Your task to perform on an android device: What's the weather going to be this weekend? Image 0: 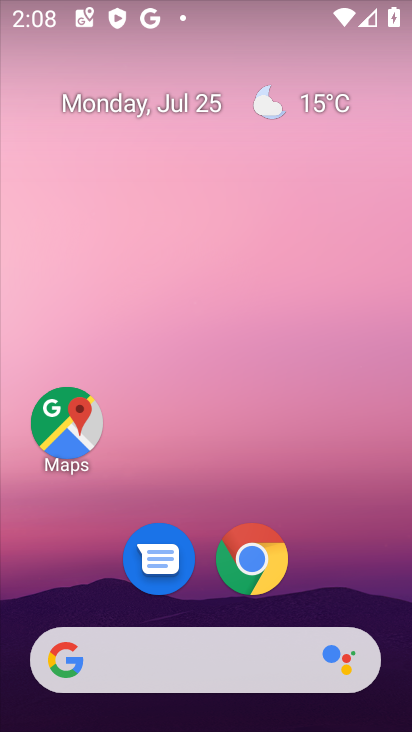
Step 0: click (186, 663)
Your task to perform on an android device: What's the weather going to be this weekend? Image 1: 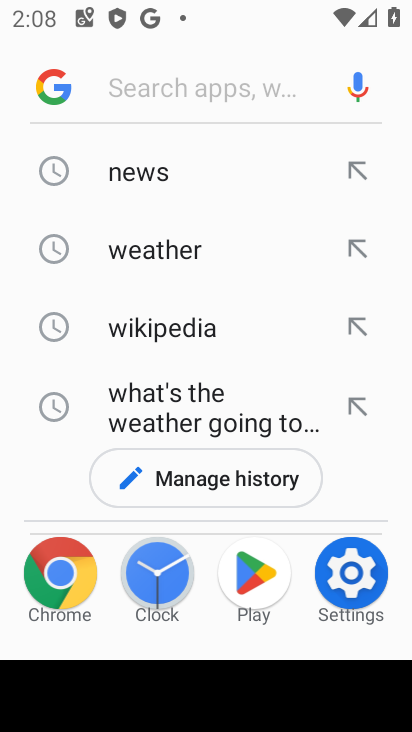
Step 1: click (236, 246)
Your task to perform on an android device: What's the weather going to be this weekend? Image 2: 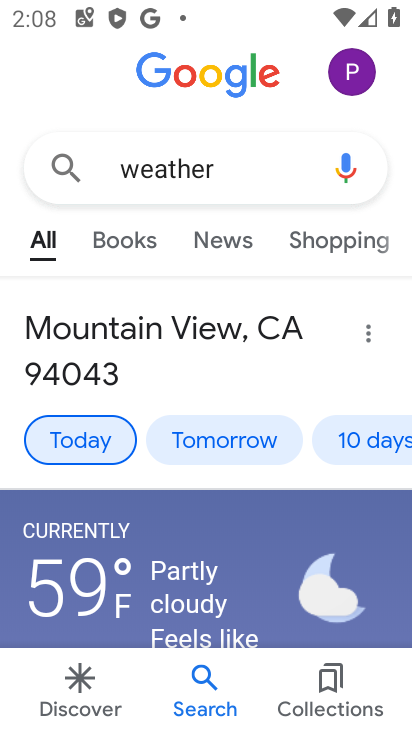
Step 2: click (352, 438)
Your task to perform on an android device: What's the weather going to be this weekend? Image 3: 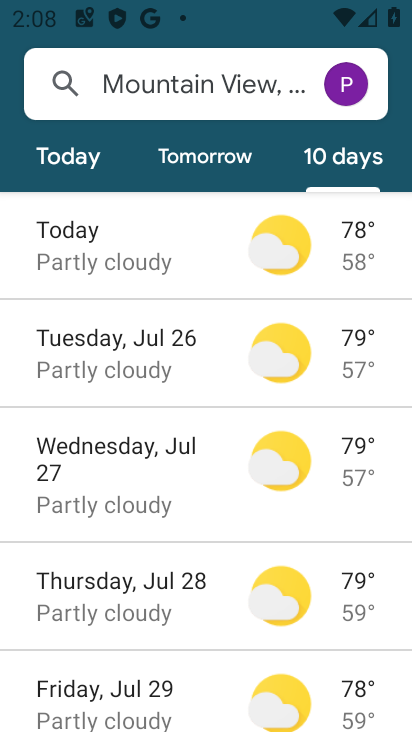
Step 3: task complete